Your task to perform on an android device: toggle data saver in the chrome app Image 0: 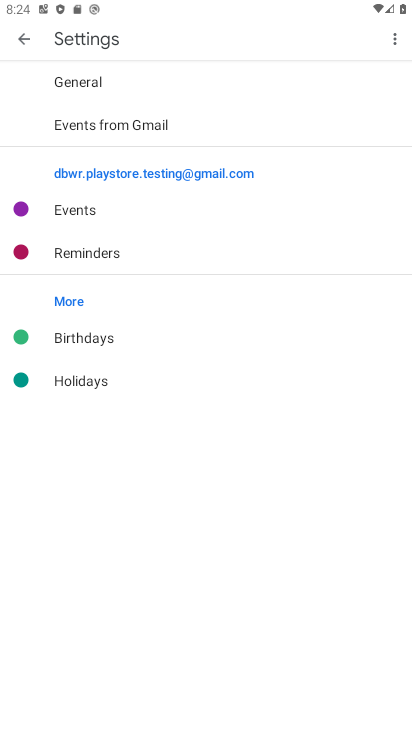
Step 0: press home button
Your task to perform on an android device: toggle data saver in the chrome app Image 1: 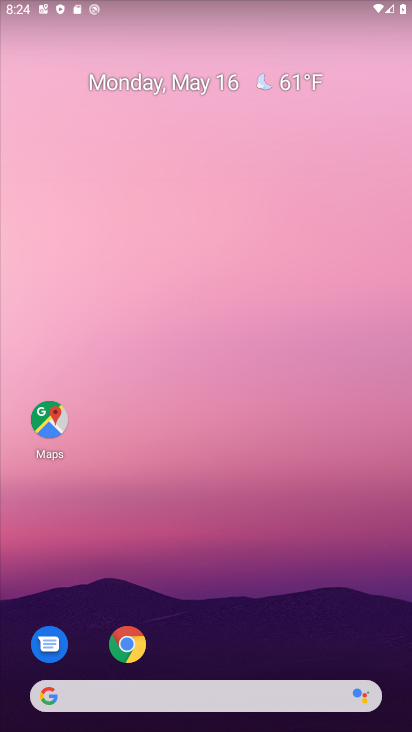
Step 1: click (130, 644)
Your task to perform on an android device: toggle data saver in the chrome app Image 2: 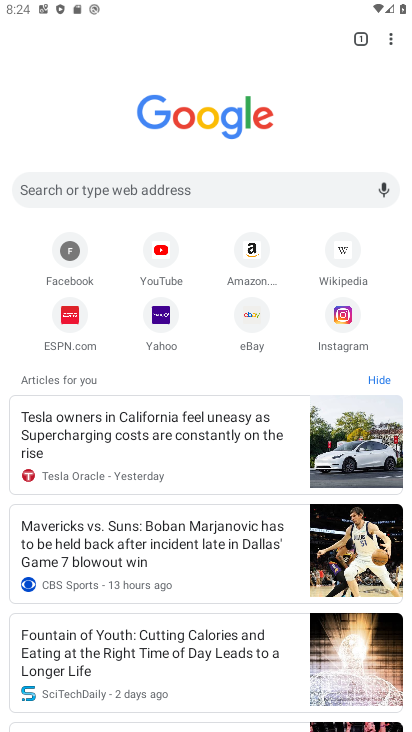
Step 2: click (386, 40)
Your task to perform on an android device: toggle data saver in the chrome app Image 3: 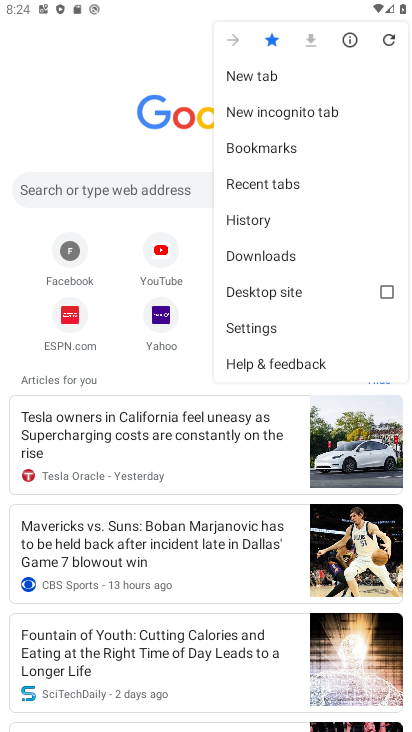
Step 3: click (246, 328)
Your task to perform on an android device: toggle data saver in the chrome app Image 4: 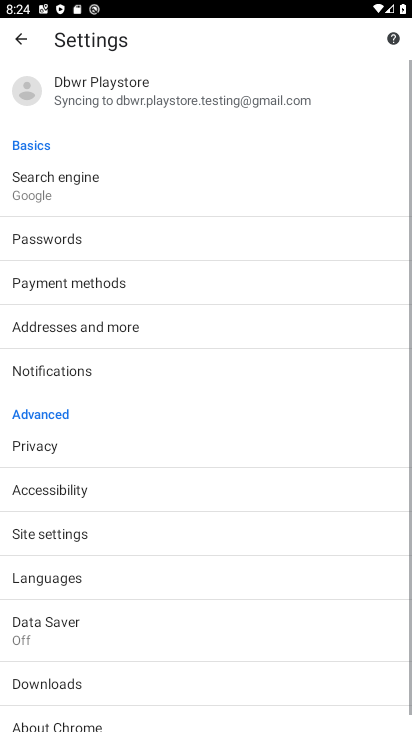
Step 4: drag from (97, 633) to (112, 575)
Your task to perform on an android device: toggle data saver in the chrome app Image 5: 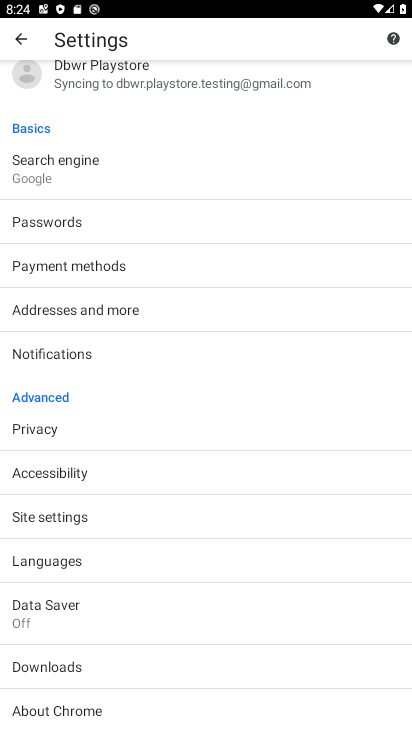
Step 5: click (79, 614)
Your task to perform on an android device: toggle data saver in the chrome app Image 6: 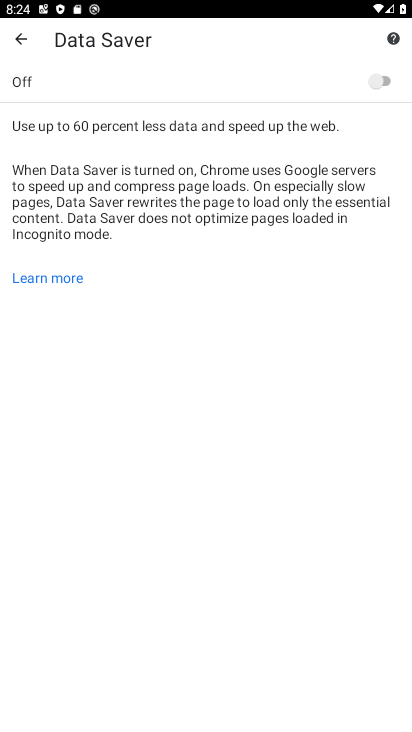
Step 6: click (374, 74)
Your task to perform on an android device: toggle data saver in the chrome app Image 7: 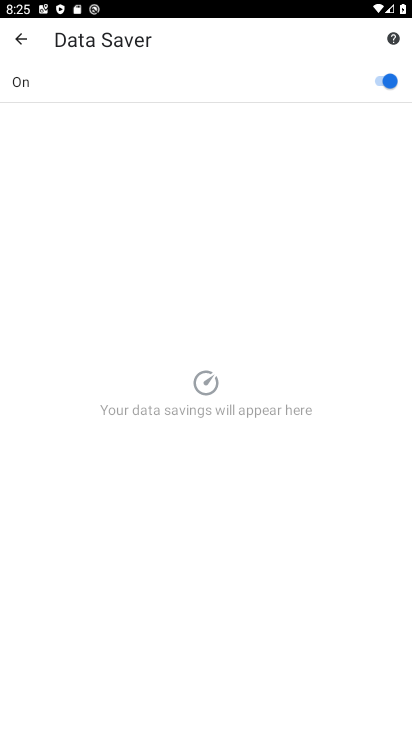
Step 7: task complete